Your task to perform on an android device: turn on the 24-hour format for clock Image 0: 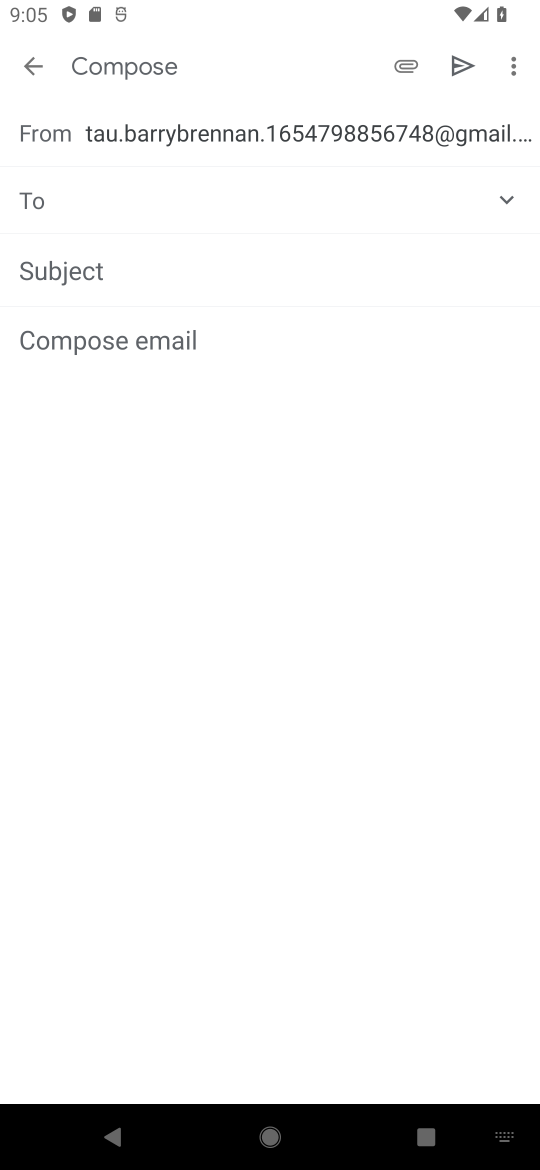
Step 0: press back button
Your task to perform on an android device: turn on the 24-hour format for clock Image 1: 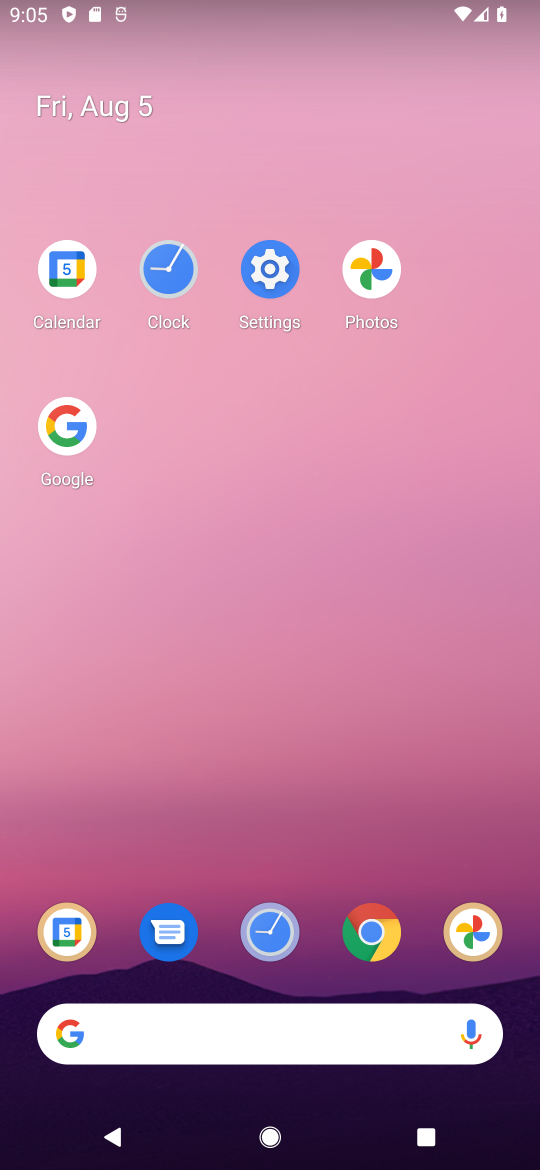
Step 1: click (169, 246)
Your task to perform on an android device: turn on the 24-hour format for clock Image 2: 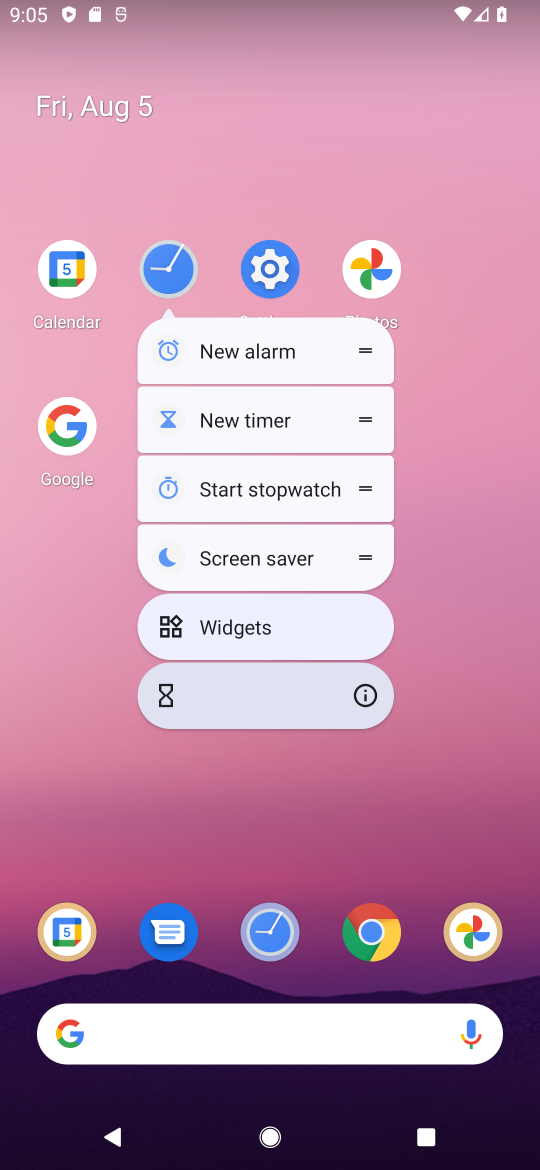
Step 2: click (186, 279)
Your task to perform on an android device: turn on the 24-hour format for clock Image 3: 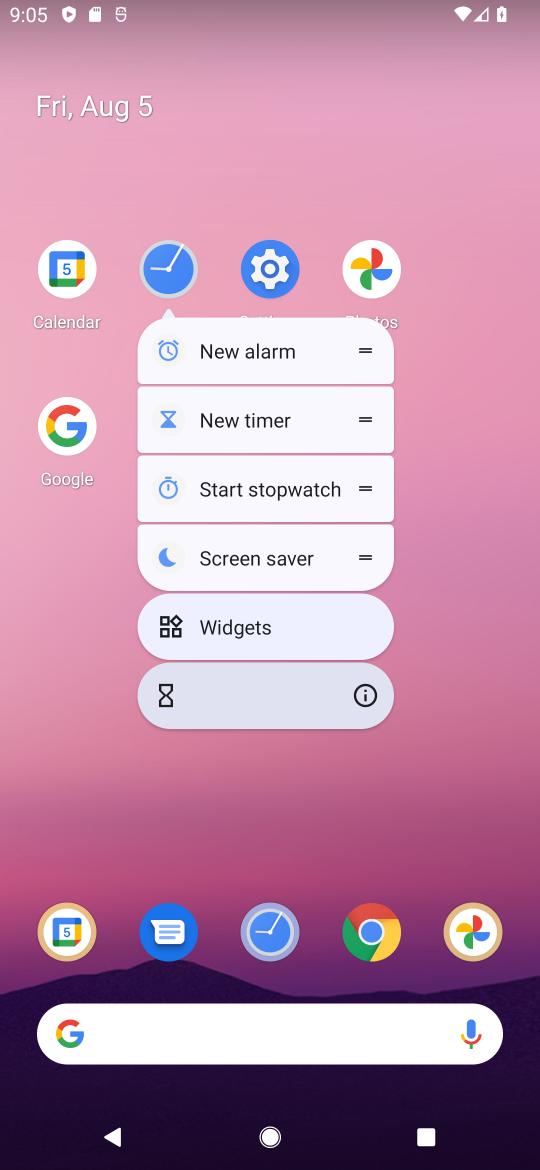
Step 3: click (129, 240)
Your task to perform on an android device: turn on the 24-hour format for clock Image 4: 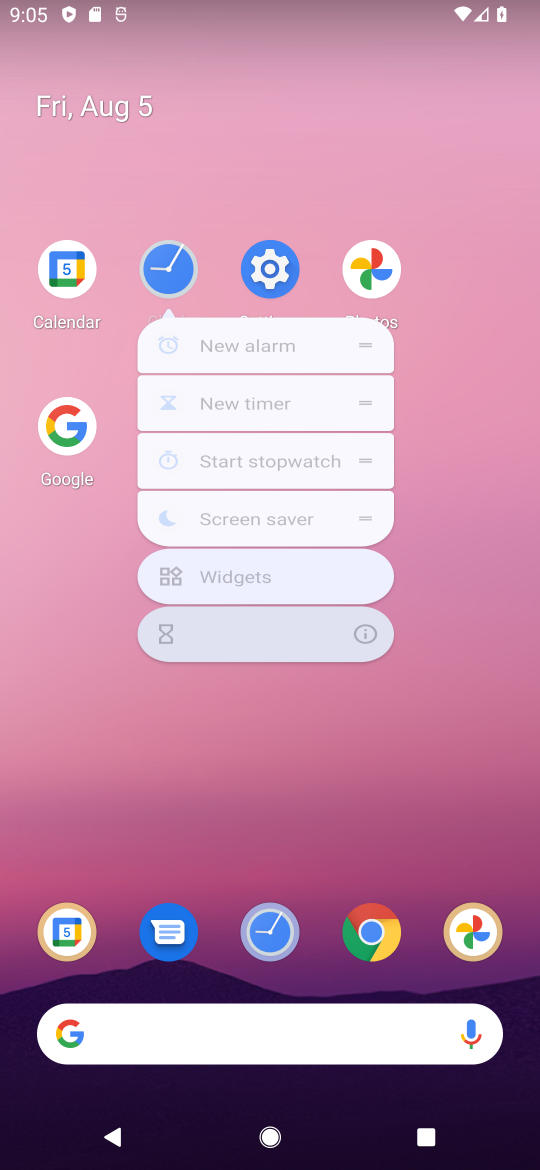
Step 4: click (156, 241)
Your task to perform on an android device: turn on the 24-hour format for clock Image 5: 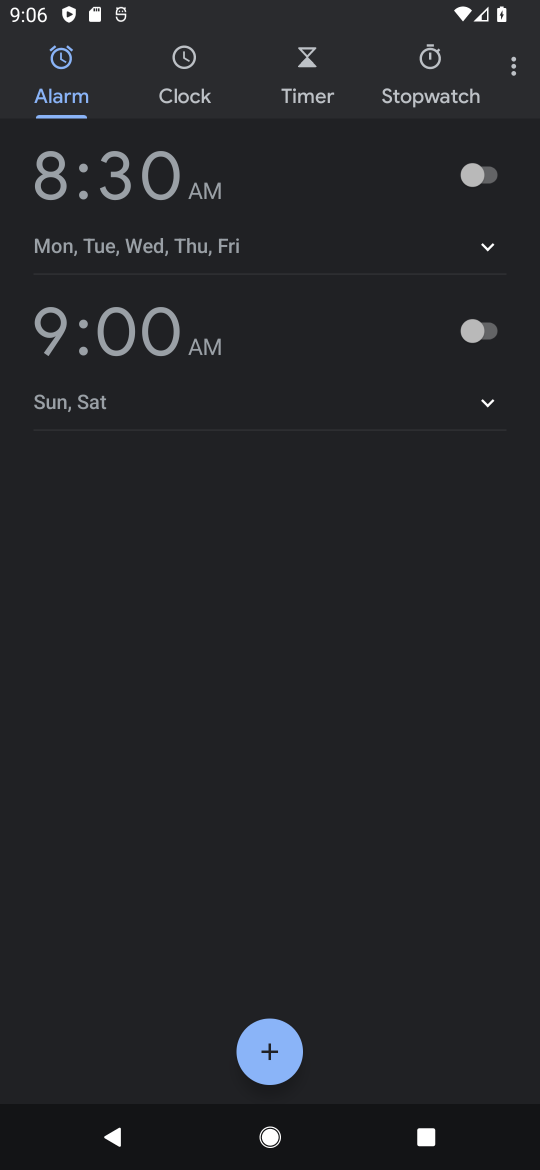
Step 5: click (508, 68)
Your task to perform on an android device: turn on the 24-hour format for clock Image 6: 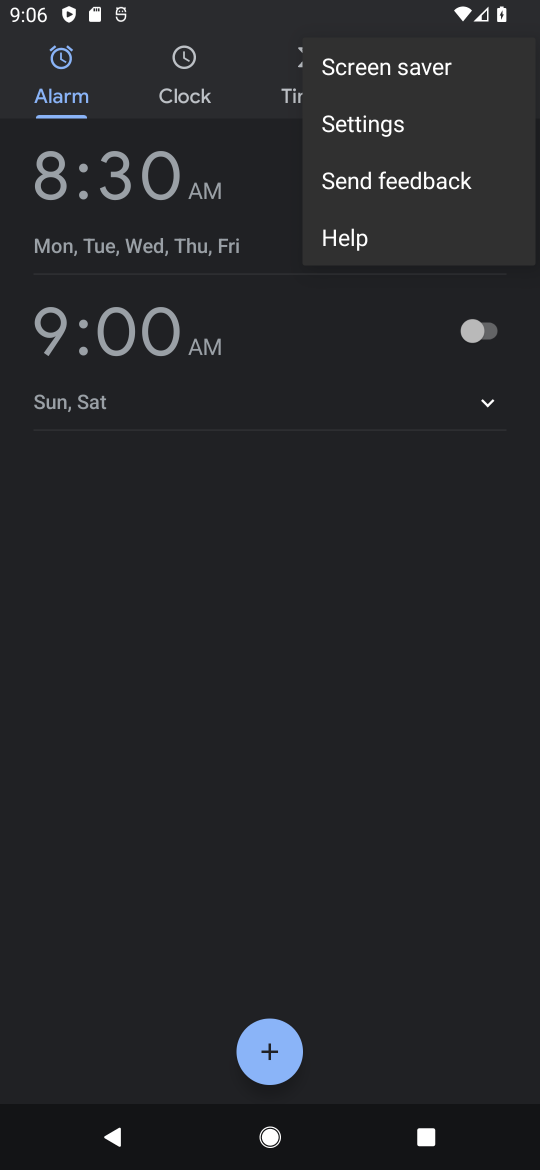
Step 6: click (346, 113)
Your task to perform on an android device: turn on the 24-hour format for clock Image 7: 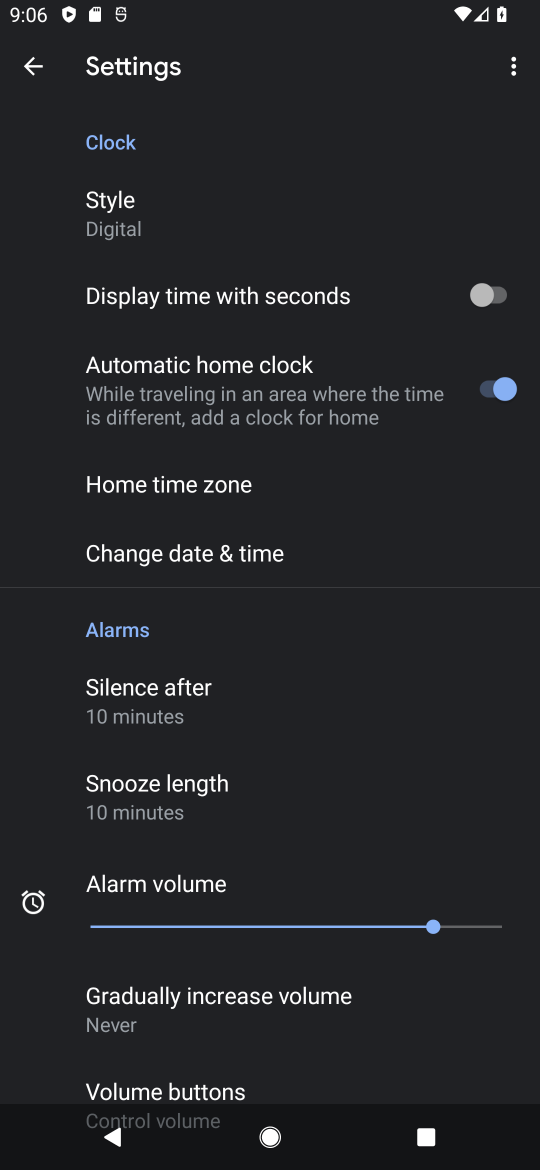
Step 7: click (237, 565)
Your task to perform on an android device: turn on the 24-hour format for clock Image 8: 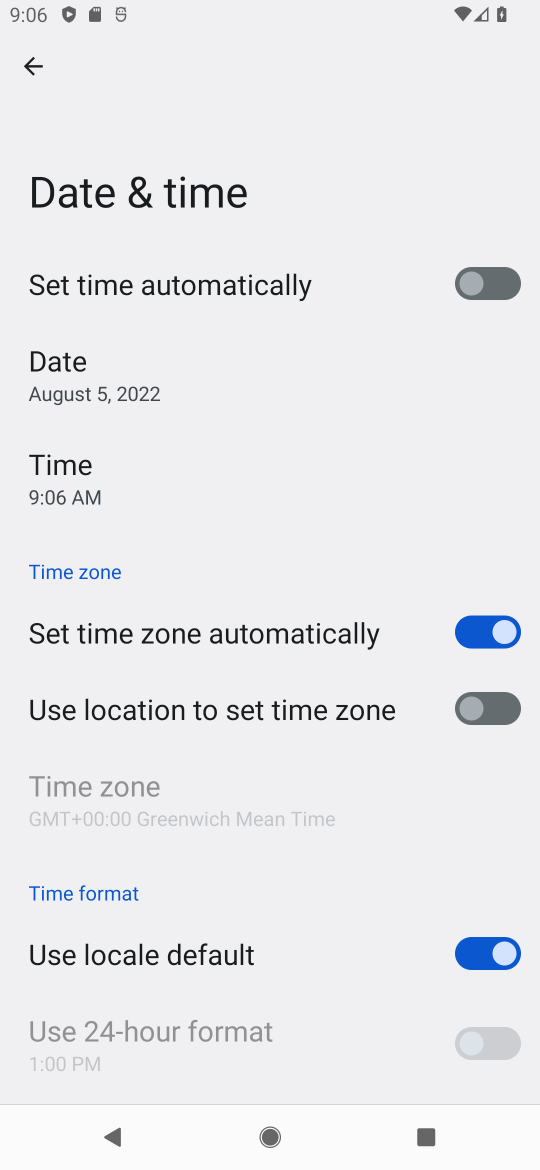
Step 8: drag from (397, 914) to (318, 369)
Your task to perform on an android device: turn on the 24-hour format for clock Image 9: 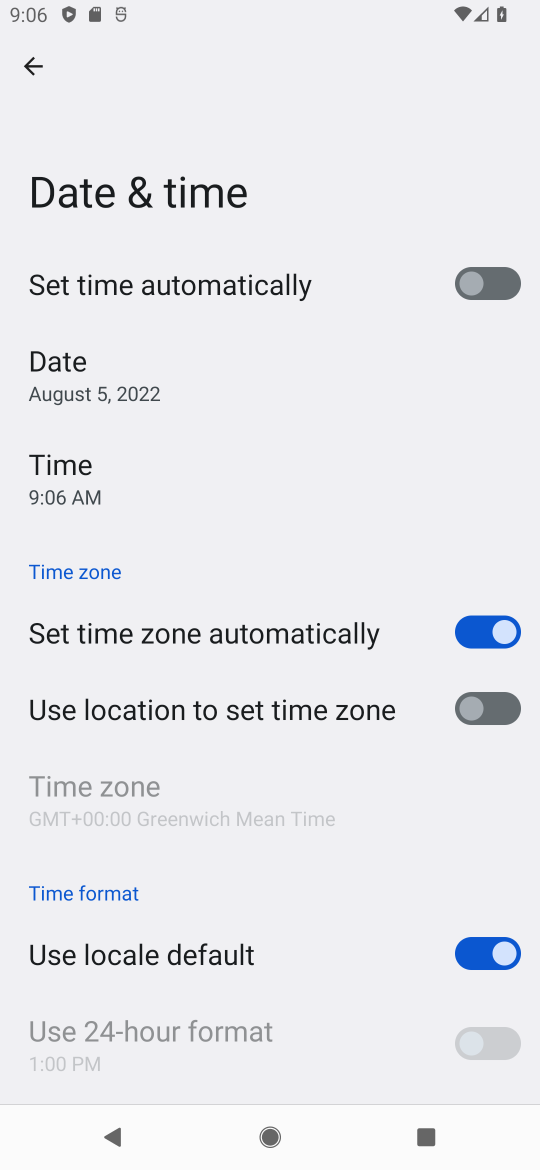
Step 9: click (466, 955)
Your task to perform on an android device: turn on the 24-hour format for clock Image 10: 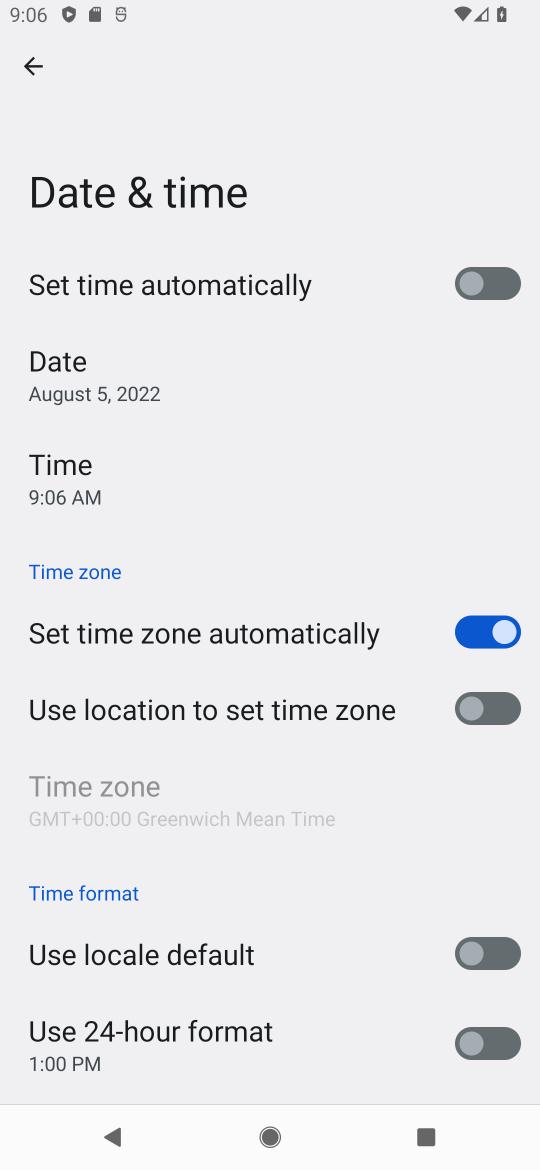
Step 10: click (497, 1044)
Your task to perform on an android device: turn on the 24-hour format for clock Image 11: 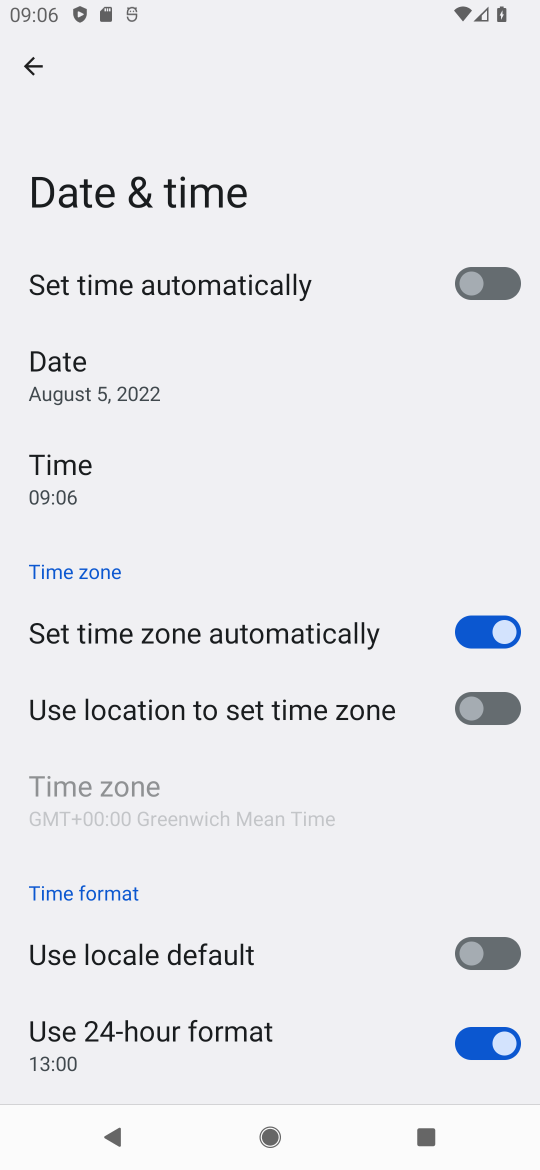
Step 11: task complete